Your task to perform on an android device: remove spam from my inbox in the gmail app Image 0: 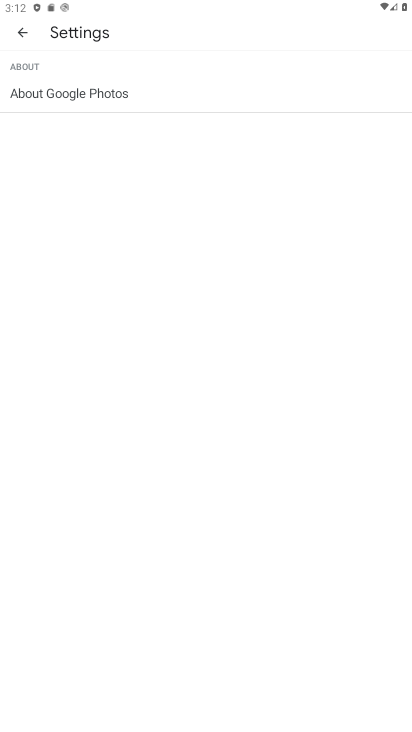
Step 0: press home button
Your task to perform on an android device: remove spam from my inbox in the gmail app Image 1: 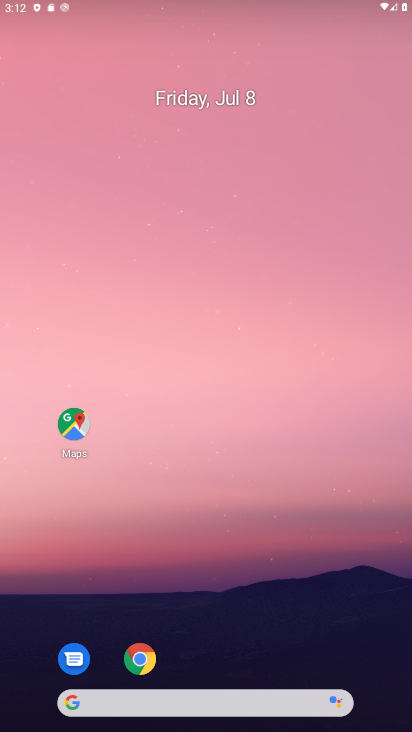
Step 1: drag from (66, 555) to (365, 10)
Your task to perform on an android device: remove spam from my inbox in the gmail app Image 2: 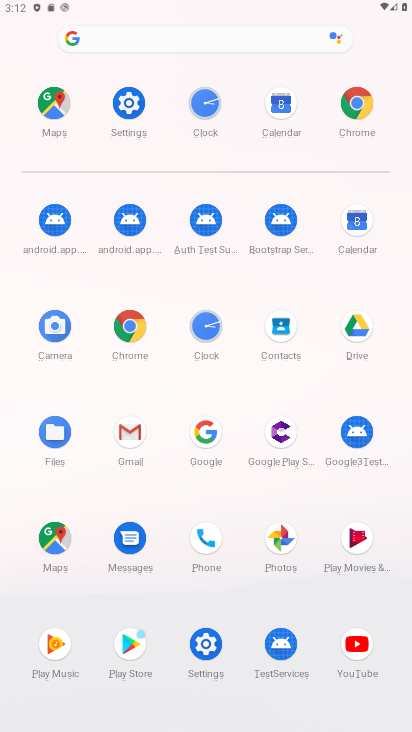
Step 2: click (134, 434)
Your task to perform on an android device: remove spam from my inbox in the gmail app Image 3: 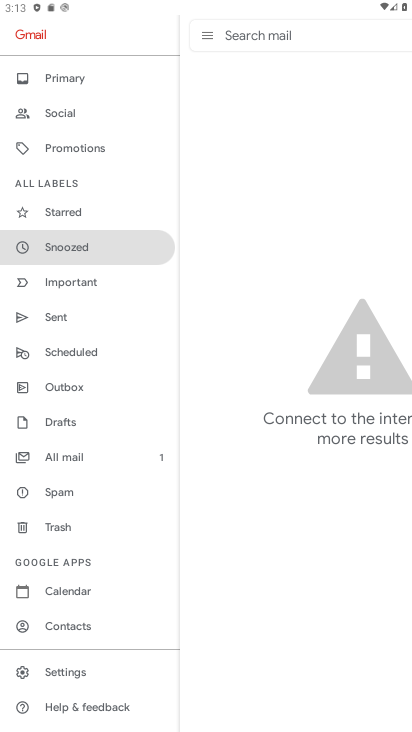
Step 3: click (48, 490)
Your task to perform on an android device: remove spam from my inbox in the gmail app Image 4: 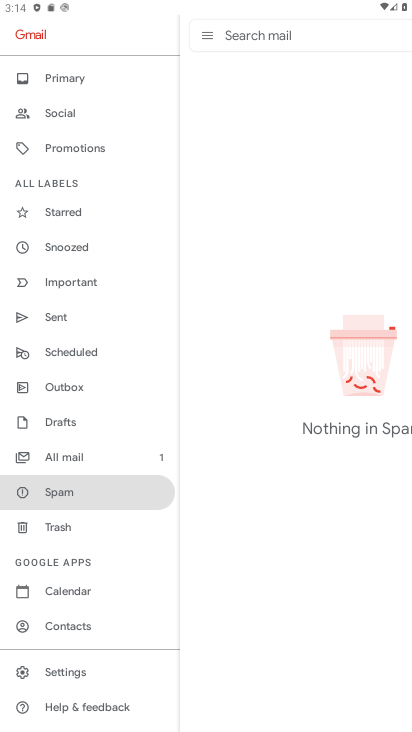
Step 4: task complete